Your task to perform on an android device: see sites visited before in the chrome app Image 0: 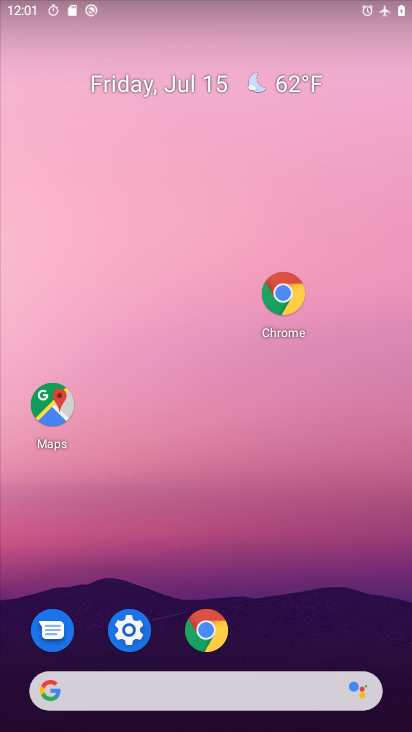
Step 0: click (229, 142)
Your task to perform on an android device: see sites visited before in the chrome app Image 1: 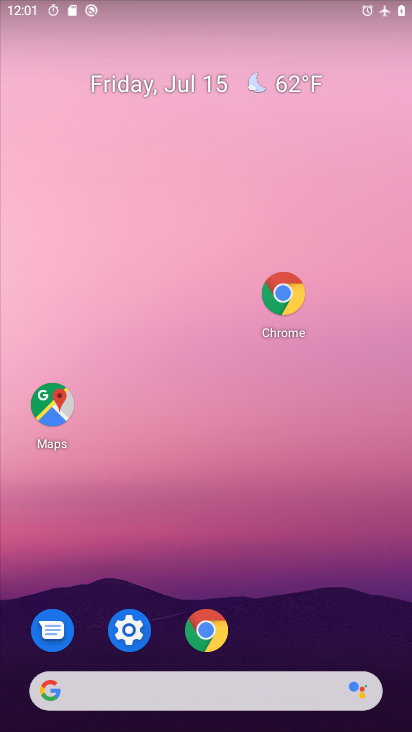
Step 1: drag from (285, 444) to (274, 109)
Your task to perform on an android device: see sites visited before in the chrome app Image 2: 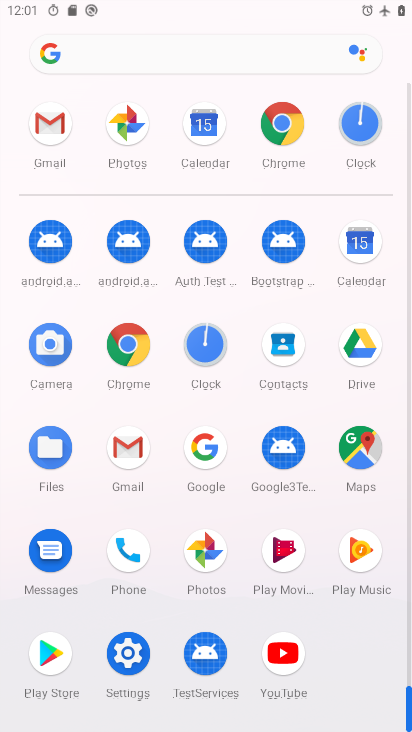
Step 2: click (128, 340)
Your task to perform on an android device: see sites visited before in the chrome app Image 3: 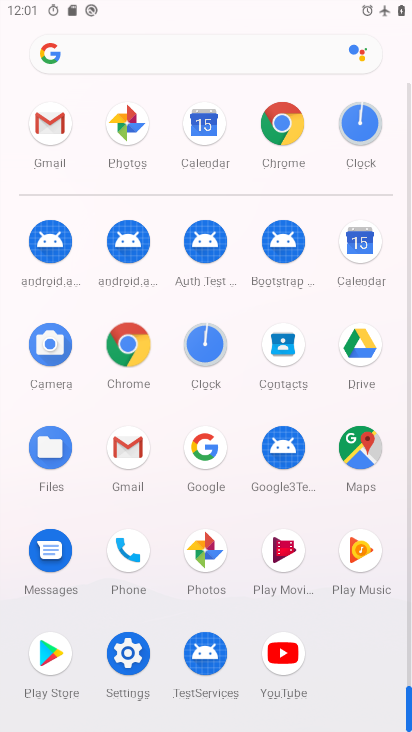
Step 3: click (127, 341)
Your task to perform on an android device: see sites visited before in the chrome app Image 4: 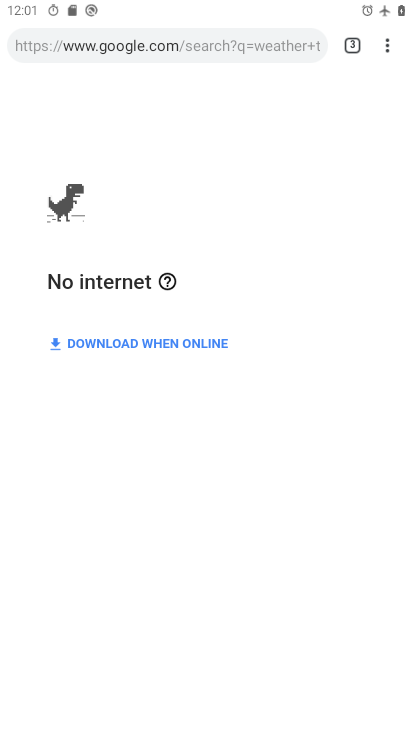
Step 4: press back button
Your task to perform on an android device: see sites visited before in the chrome app Image 5: 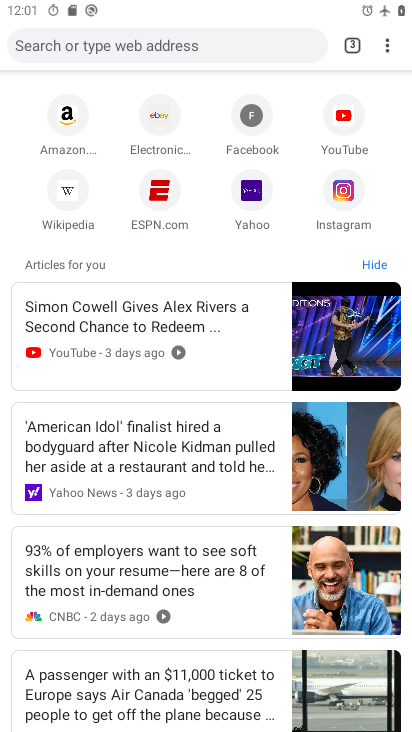
Step 5: drag from (386, 39) to (235, 258)
Your task to perform on an android device: see sites visited before in the chrome app Image 6: 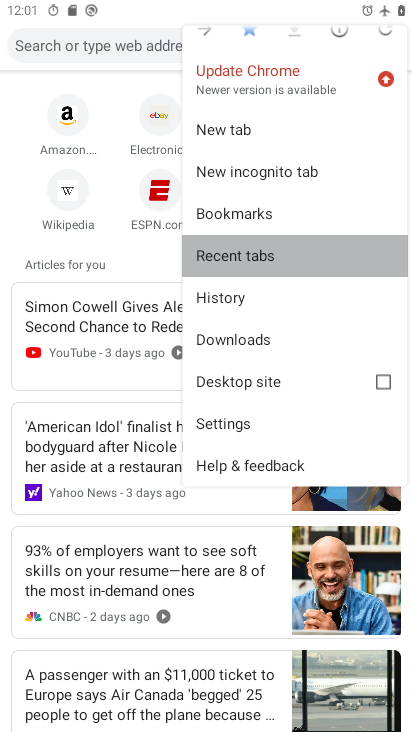
Step 6: click (203, 245)
Your task to perform on an android device: see sites visited before in the chrome app Image 7: 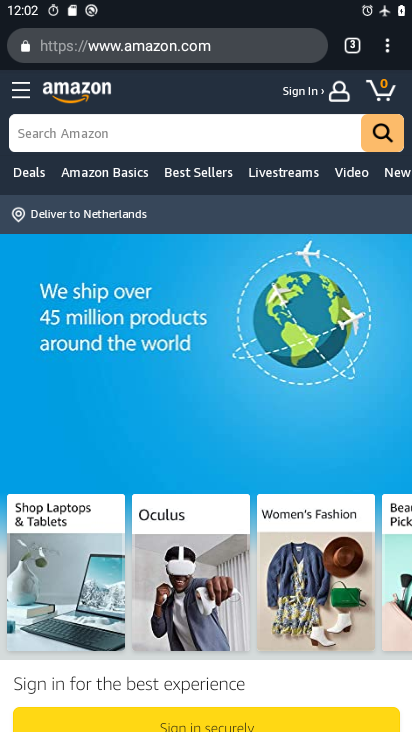
Step 7: task complete